Your task to perform on an android device: turn on priority inbox in the gmail app Image 0: 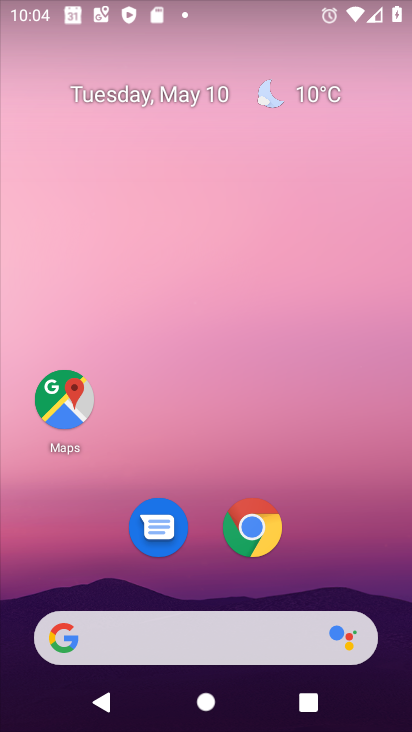
Step 0: drag from (226, 720) to (225, 150)
Your task to perform on an android device: turn on priority inbox in the gmail app Image 1: 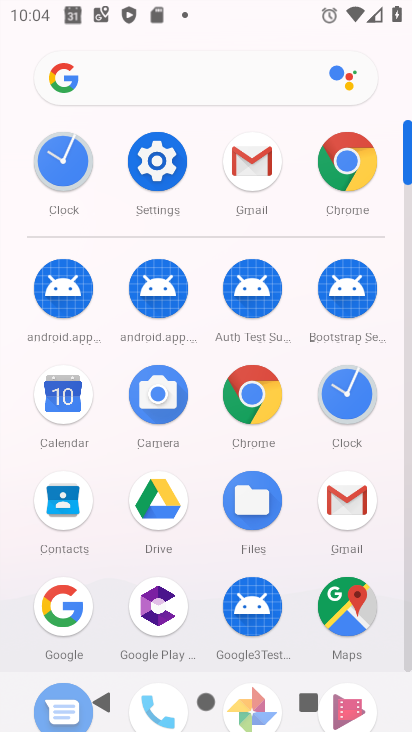
Step 1: click (347, 505)
Your task to perform on an android device: turn on priority inbox in the gmail app Image 2: 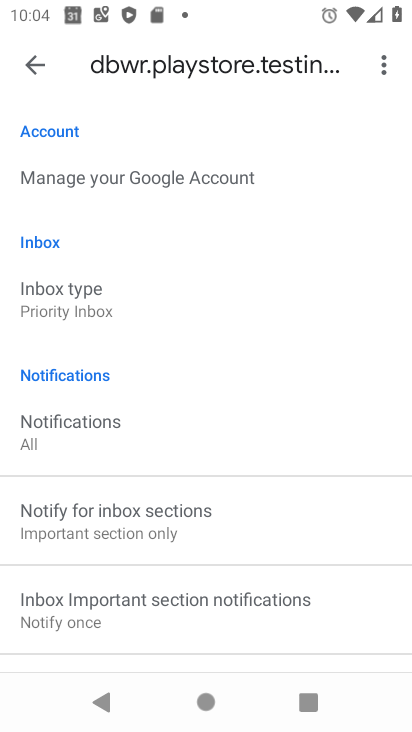
Step 2: task complete